Your task to perform on an android device: Show me popular videos on Youtube Image 0: 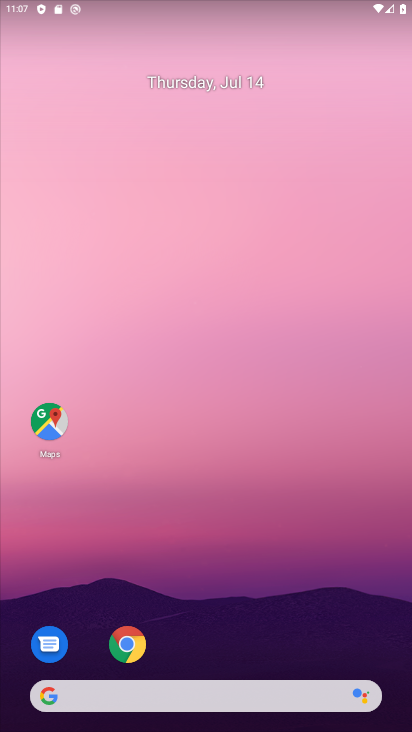
Step 0: drag from (308, 600) to (374, 123)
Your task to perform on an android device: Show me popular videos on Youtube Image 1: 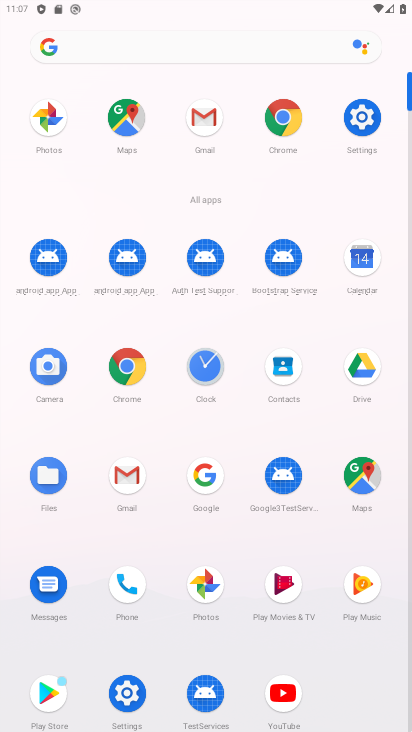
Step 1: click (301, 697)
Your task to perform on an android device: Show me popular videos on Youtube Image 2: 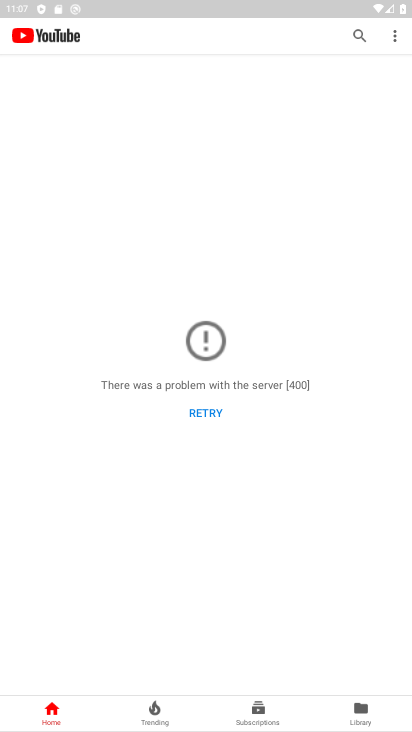
Step 2: click (351, 705)
Your task to perform on an android device: Show me popular videos on Youtube Image 3: 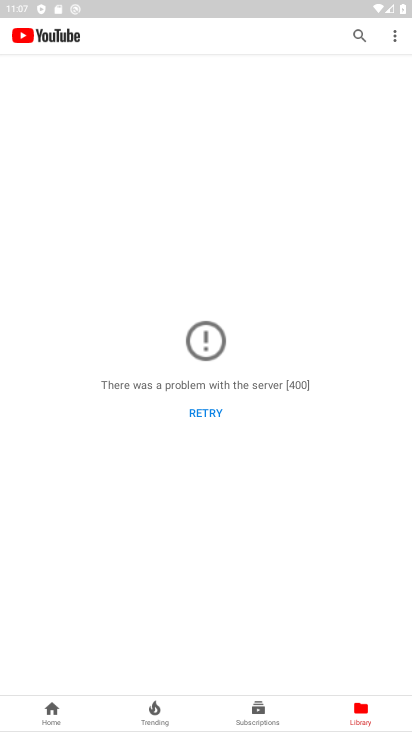
Step 3: task complete